Your task to perform on an android device: When is my next meeting? Image 0: 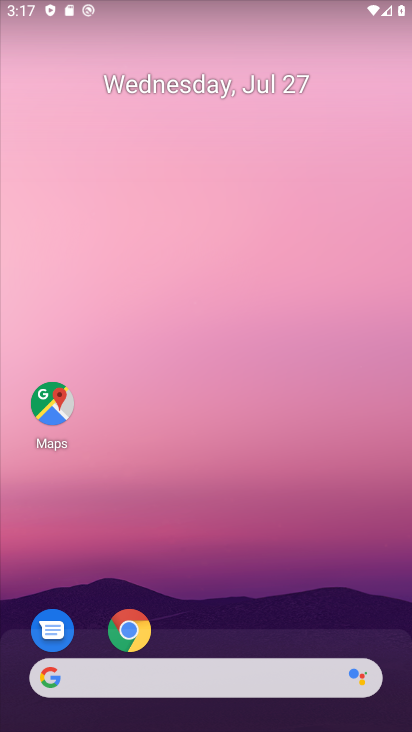
Step 0: press home button
Your task to perform on an android device: When is my next meeting? Image 1: 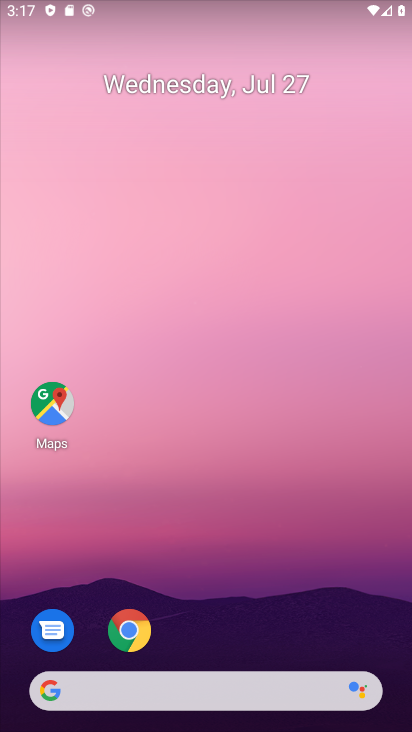
Step 1: drag from (223, 647) to (306, 122)
Your task to perform on an android device: When is my next meeting? Image 2: 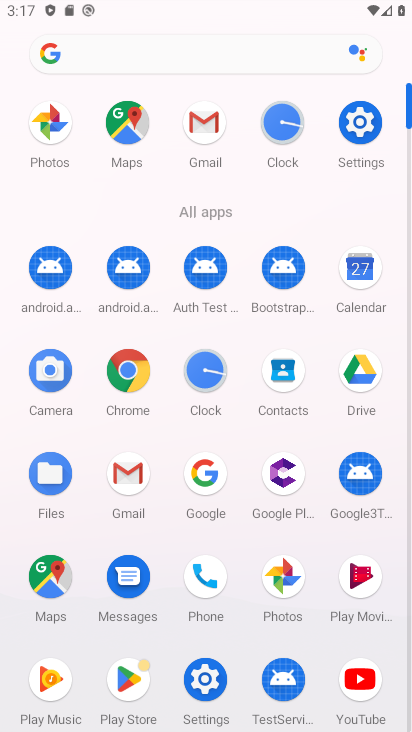
Step 2: click (351, 265)
Your task to perform on an android device: When is my next meeting? Image 3: 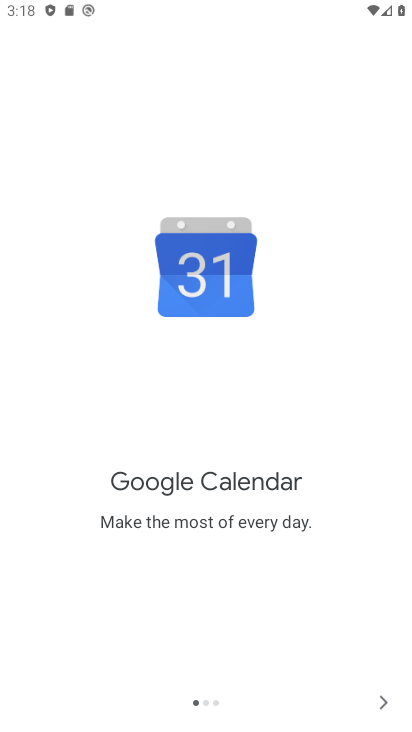
Step 3: click (384, 698)
Your task to perform on an android device: When is my next meeting? Image 4: 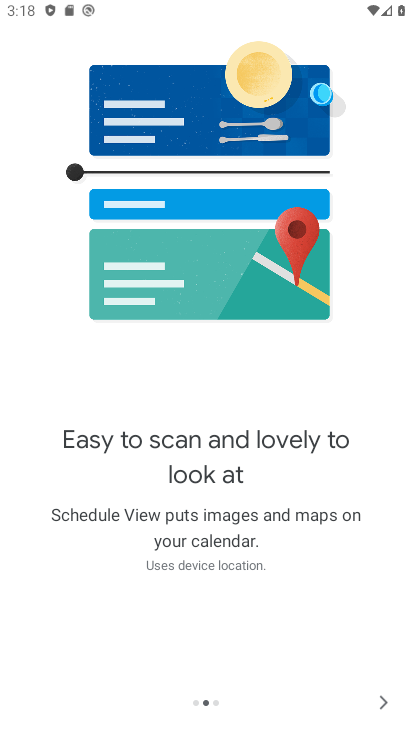
Step 4: click (384, 698)
Your task to perform on an android device: When is my next meeting? Image 5: 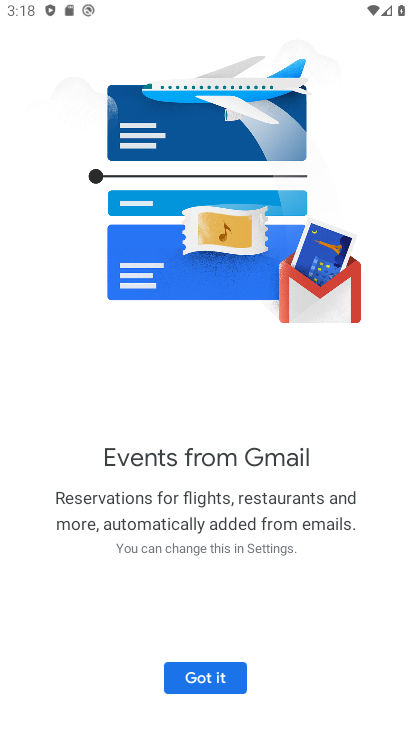
Step 5: click (208, 679)
Your task to perform on an android device: When is my next meeting? Image 6: 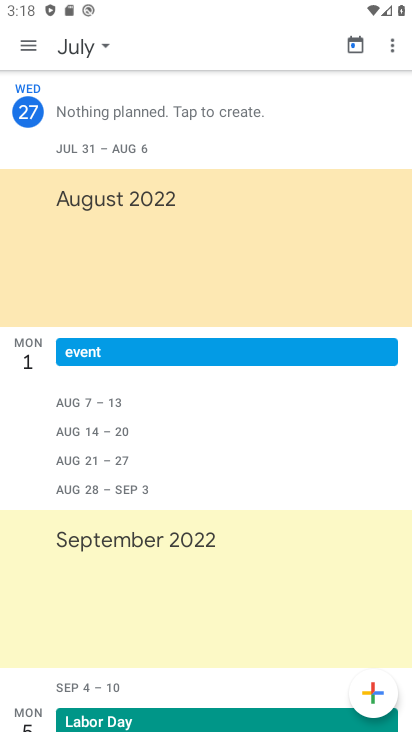
Step 6: press home button
Your task to perform on an android device: When is my next meeting? Image 7: 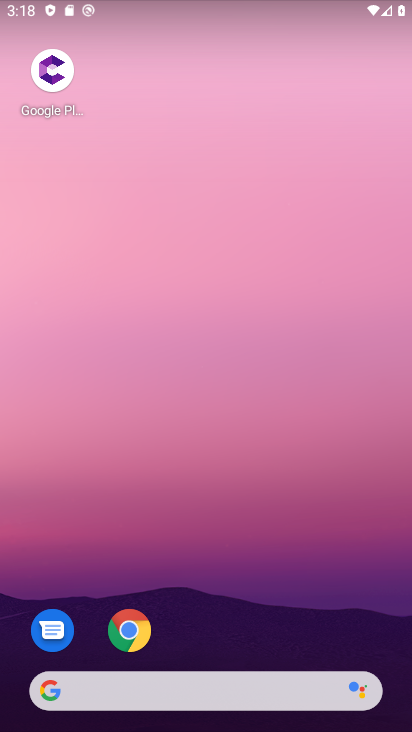
Step 7: drag from (215, 659) to (270, 243)
Your task to perform on an android device: When is my next meeting? Image 8: 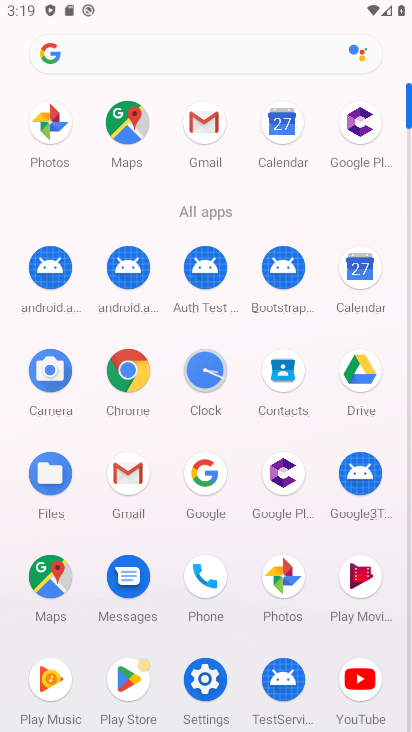
Step 8: click (356, 265)
Your task to perform on an android device: When is my next meeting? Image 9: 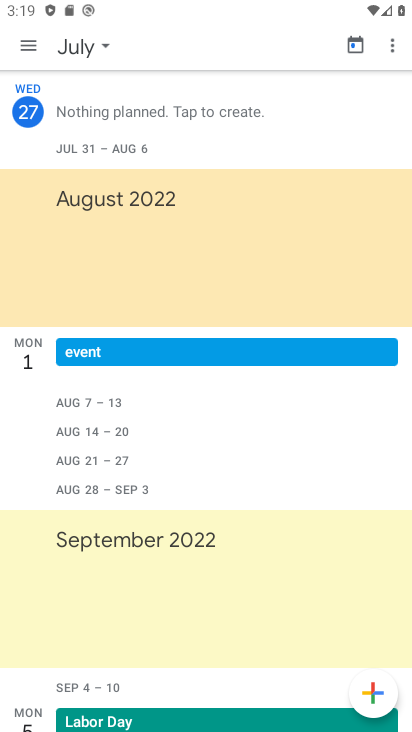
Step 9: task complete